Your task to perform on an android device: open a new tab in the chrome app Image 0: 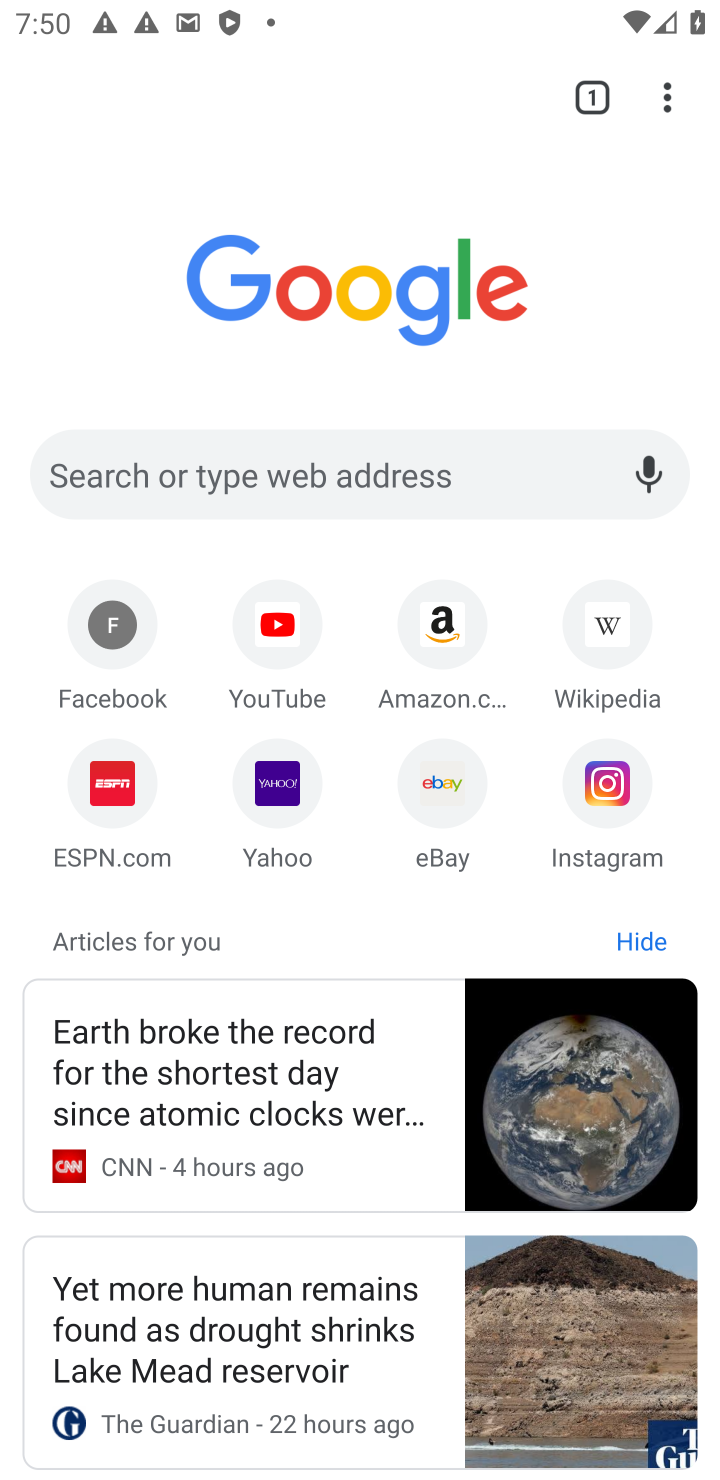
Step 0: press home button
Your task to perform on an android device: open a new tab in the chrome app Image 1: 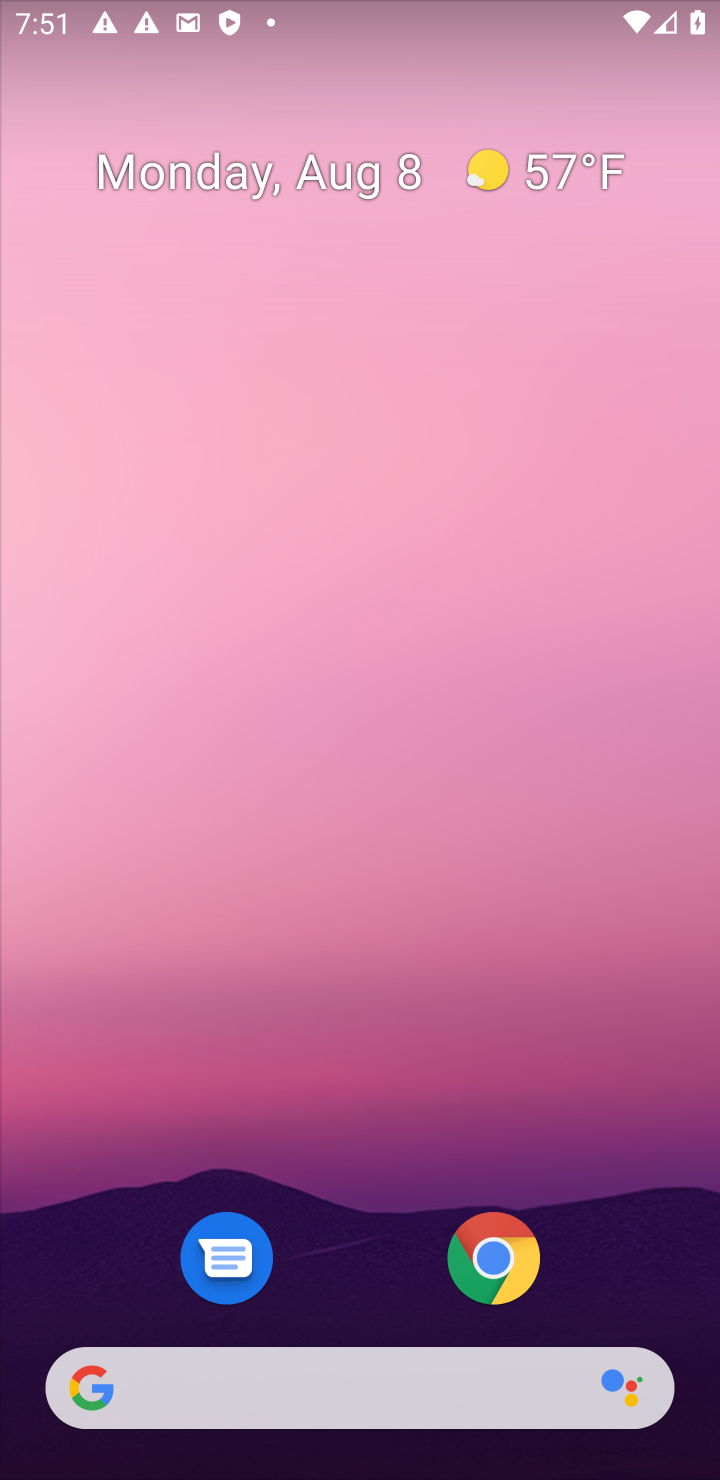
Step 1: click (474, 1279)
Your task to perform on an android device: open a new tab in the chrome app Image 2: 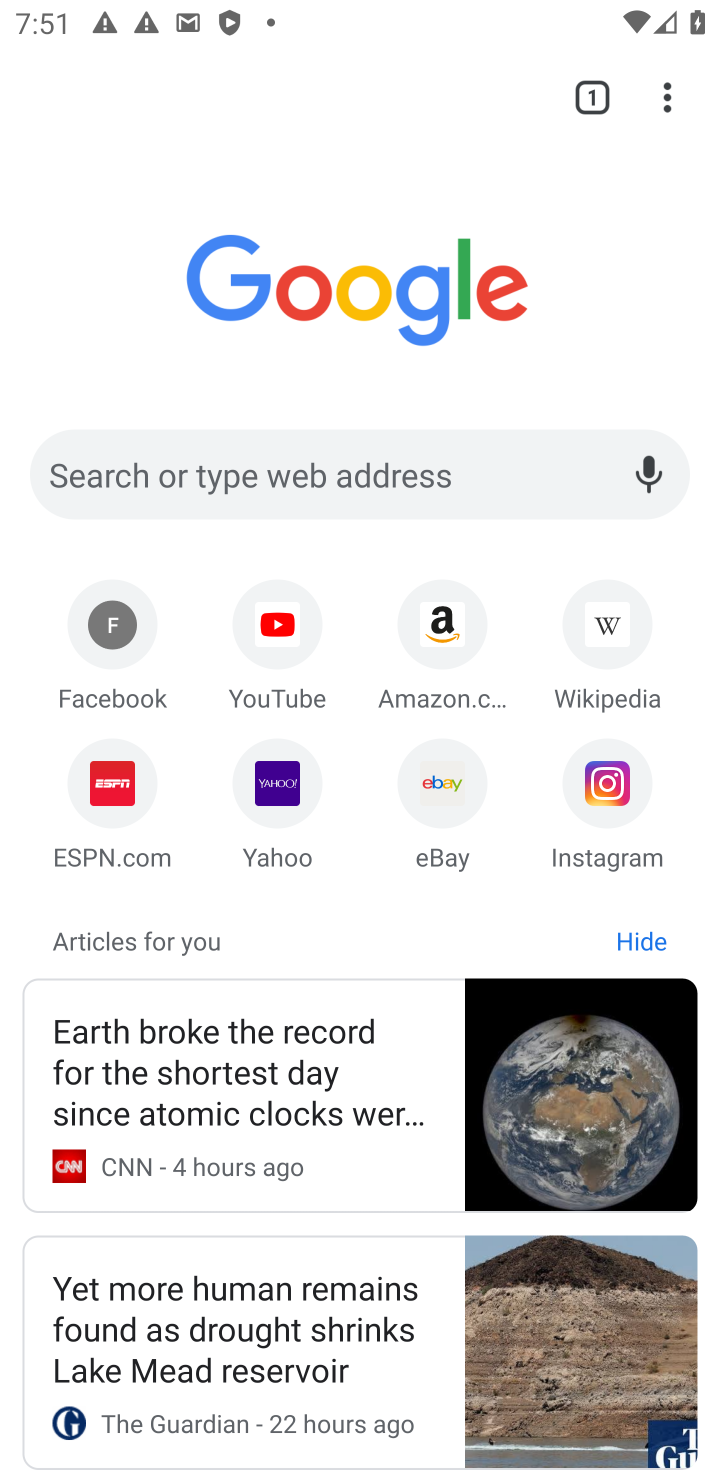
Step 2: click (596, 107)
Your task to perform on an android device: open a new tab in the chrome app Image 3: 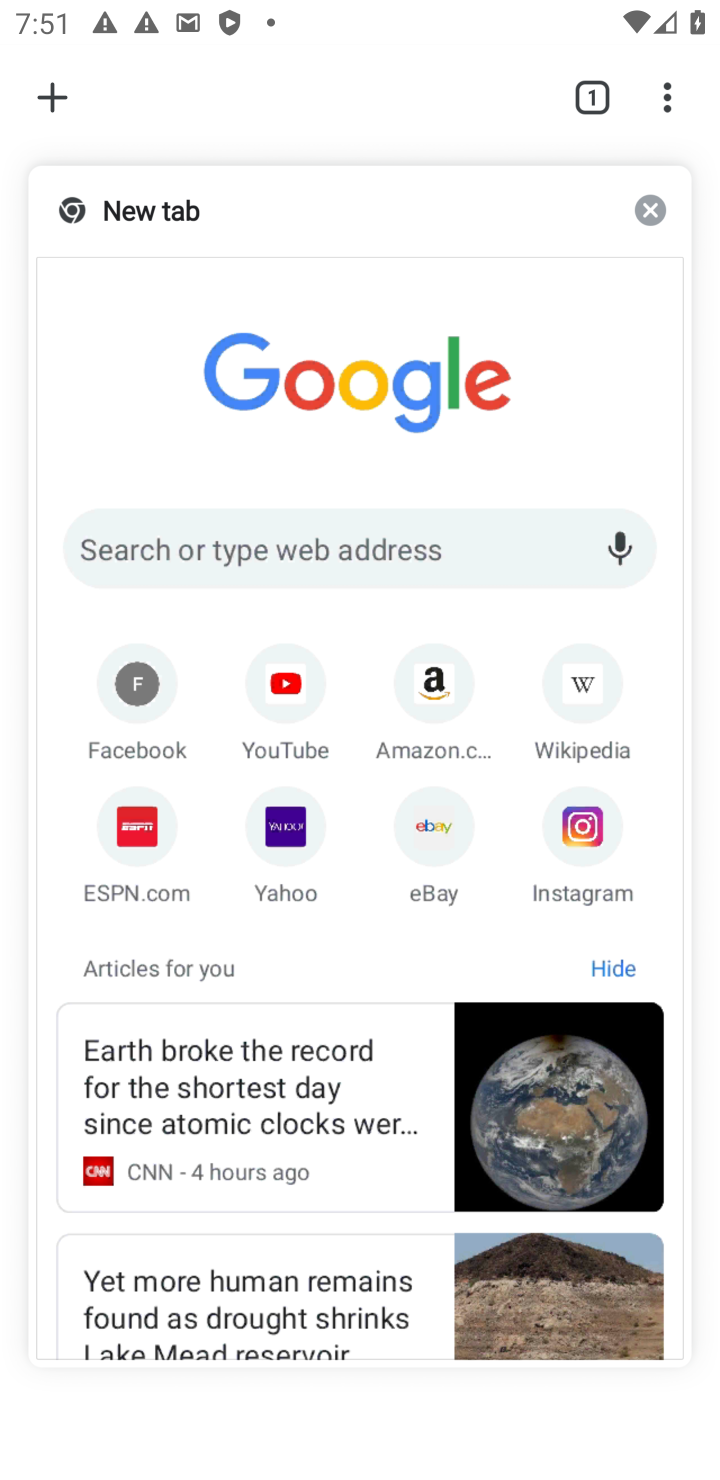
Step 3: task complete